Your task to perform on an android device: turn off wifi Image 0: 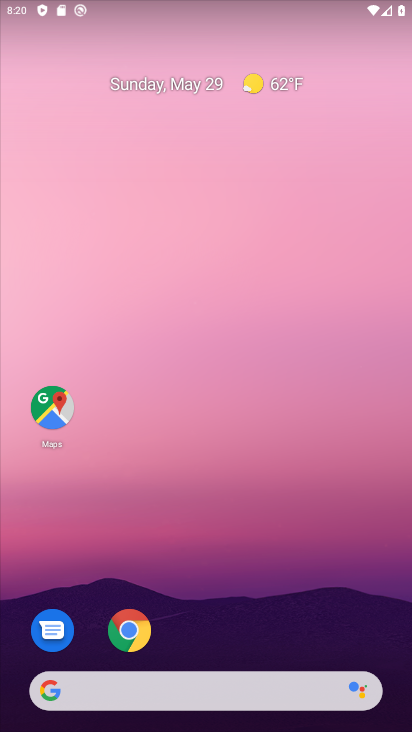
Step 0: drag from (175, 665) to (317, 99)
Your task to perform on an android device: turn off wifi Image 1: 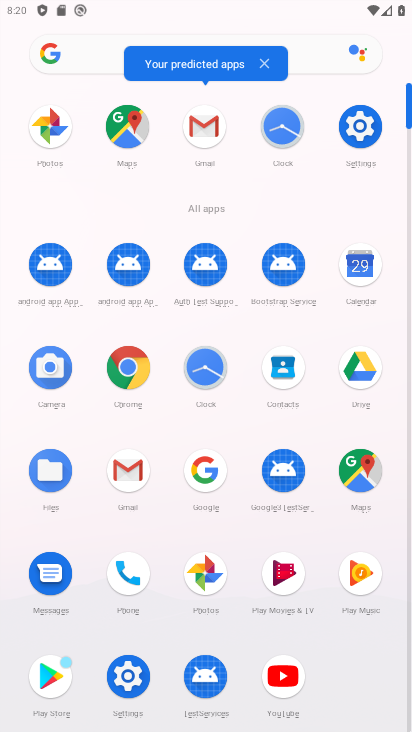
Step 1: click (118, 680)
Your task to perform on an android device: turn off wifi Image 2: 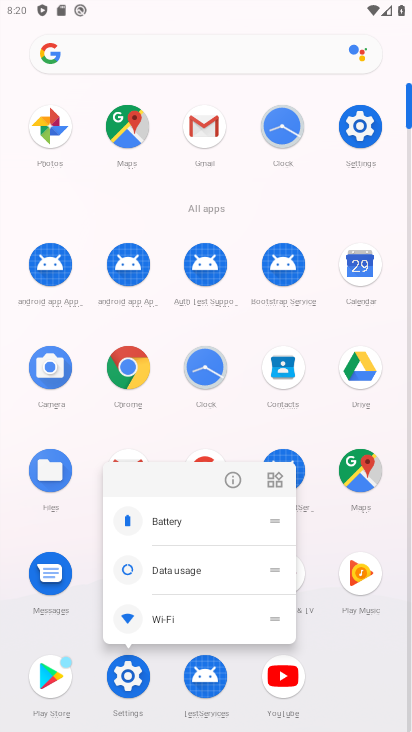
Step 2: click (136, 680)
Your task to perform on an android device: turn off wifi Image 3: 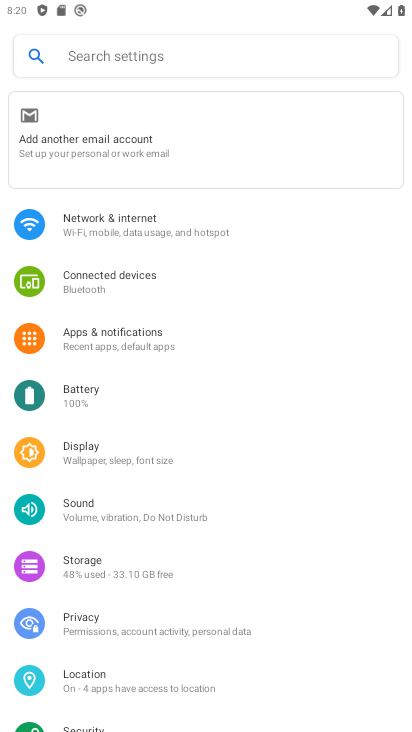
Step 3: click (205, 225)
Your task to perform on an android device: turn off wifi Image 4: 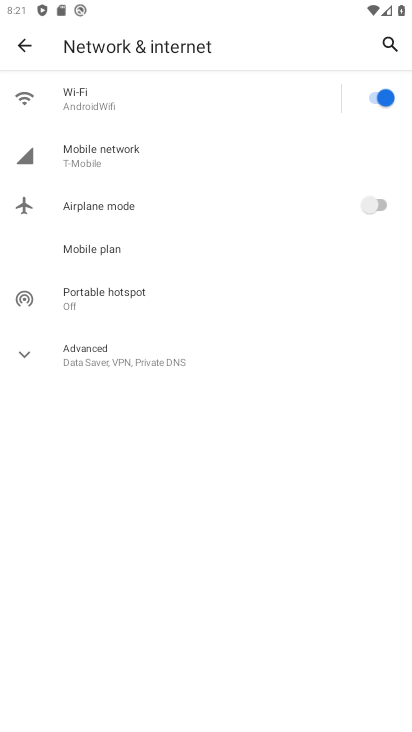
Step 4: click (369, 98)
Your task to perform on an android device: turn off wifi Image 5: 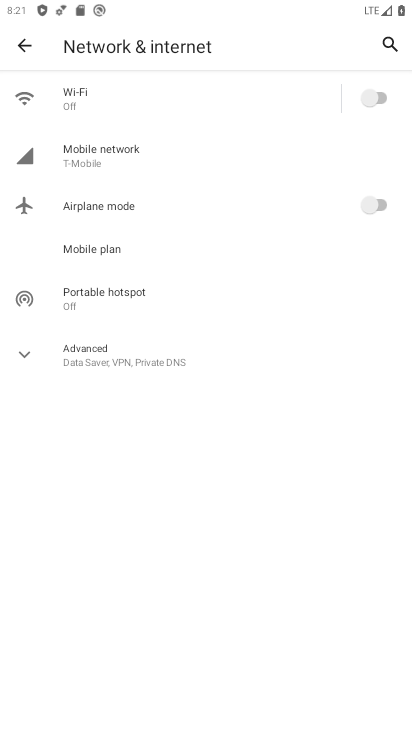
Step 5: task complete